Your task to perform on an android device: What's the weather today? Image 0: 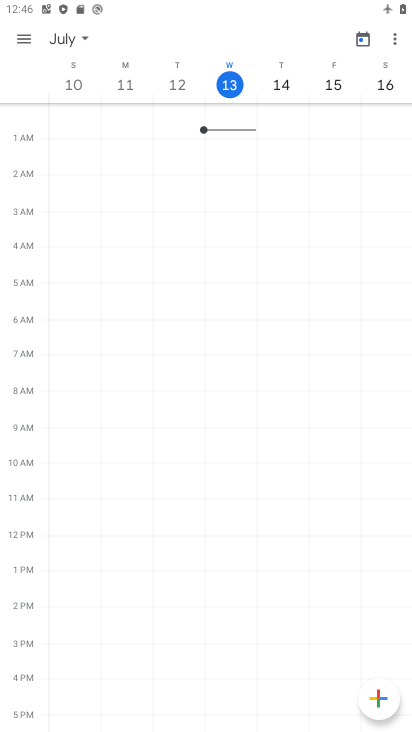
Step 0: press home button
Your task to perform on an android device: What's the weather today? Image 1: 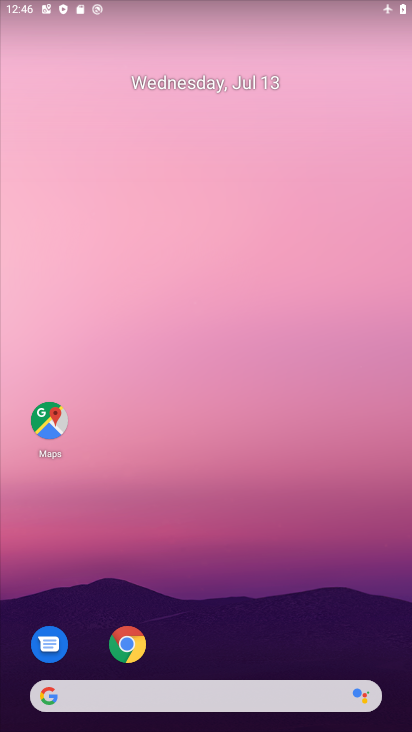
Step 1: drag from (302, 547) to (246, 75)
Your task to perform on an android device: What's the weather today? Image 2: 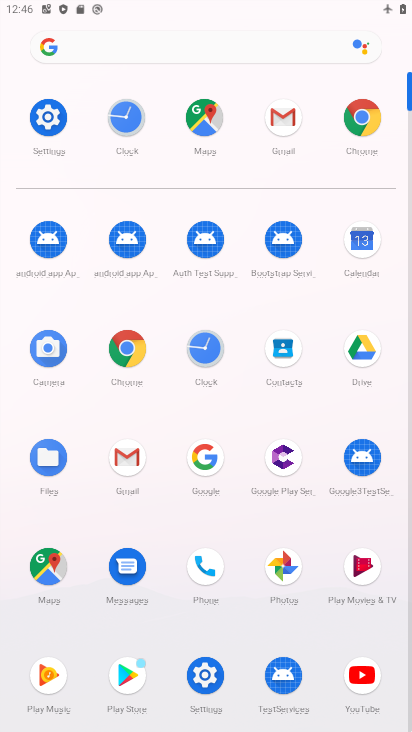
Step 2: click (361, 119)
Your task to perform on an android device: What's the weather today? Image 3: 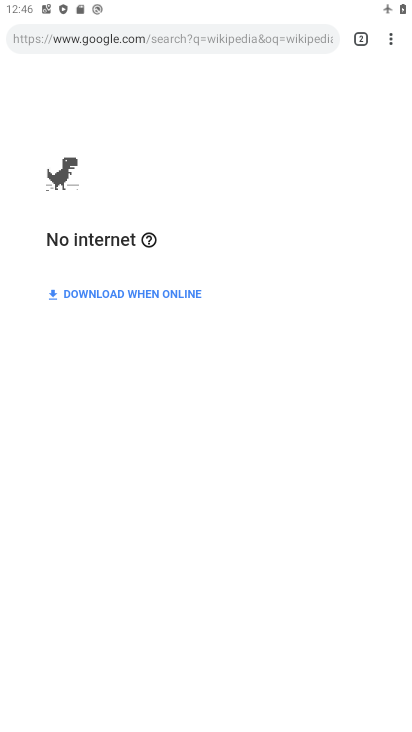
Step 3: click (201, 36)
Your task to perform on an android device: What's the weather today? Image 4: 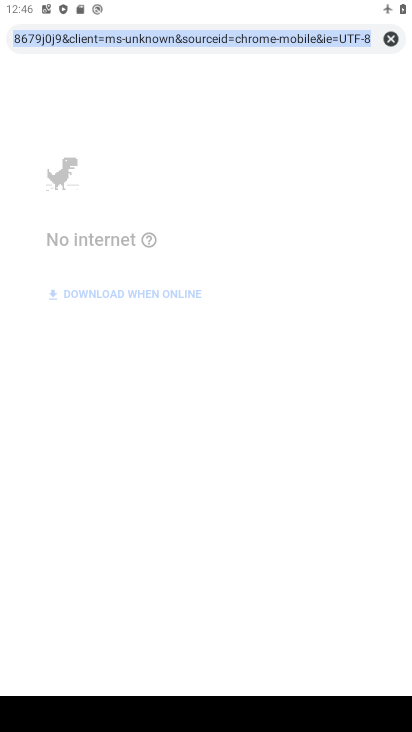
Step 4: type "weather"
Your task to perform on an android device: What's the weather today? Image 5: 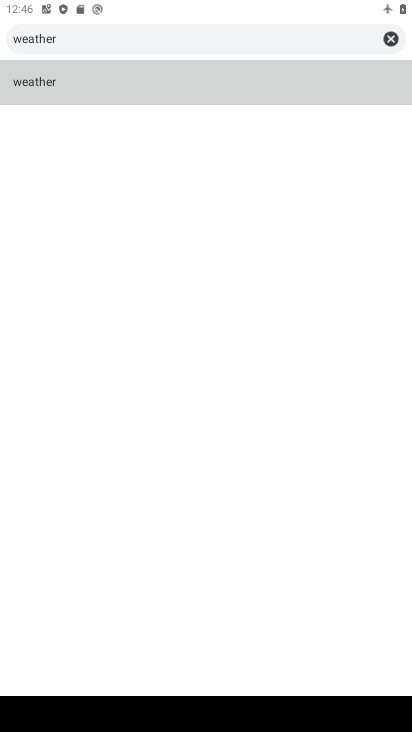
Step 5: click (48, 76)
Your task to perform on an android device: What's the weather today? Image 6: 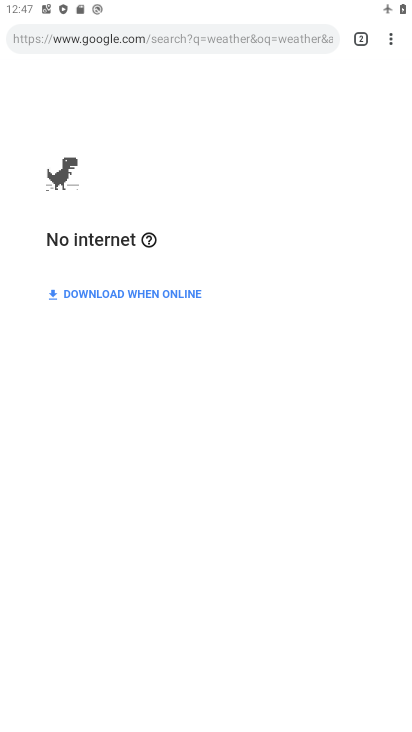
Step 6: task complete